Your task to perform on an android device: turn off priority inbox in the gmail app Image 0: 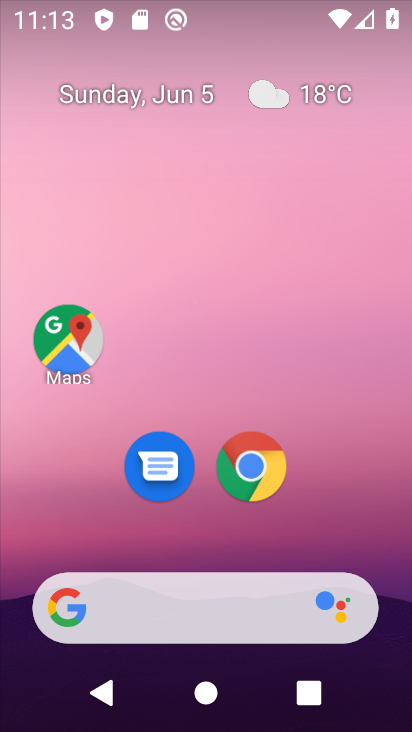
Step 0: drag from (378, 565) to (377, 201)
Your task to perform on an android device: turn off priority inbox in the gmail app Image 1: 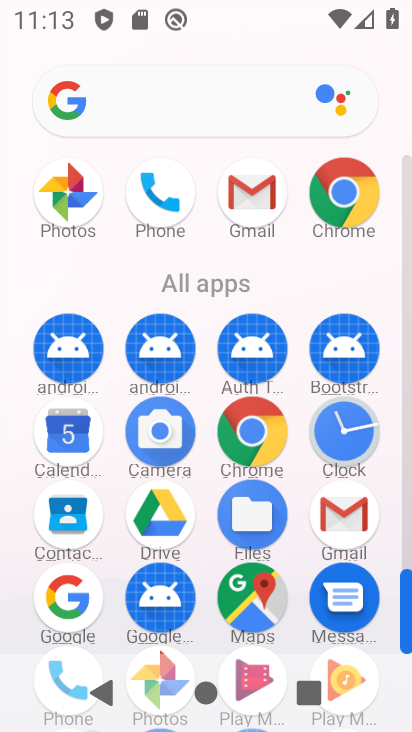
Step 1: click (349, 516)
Your task to perform on an android device: turn off priority inbox in the gmail app Image 2: 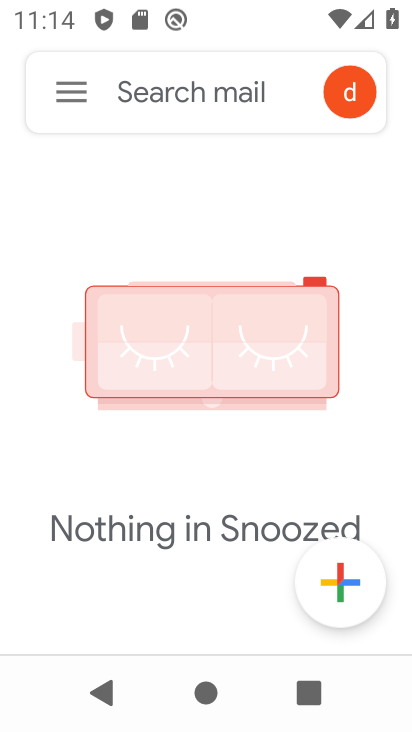
Step 2: click (61, 93)
Your task to perform on an android device: turn off priority inbox in the gmail app Image 3: 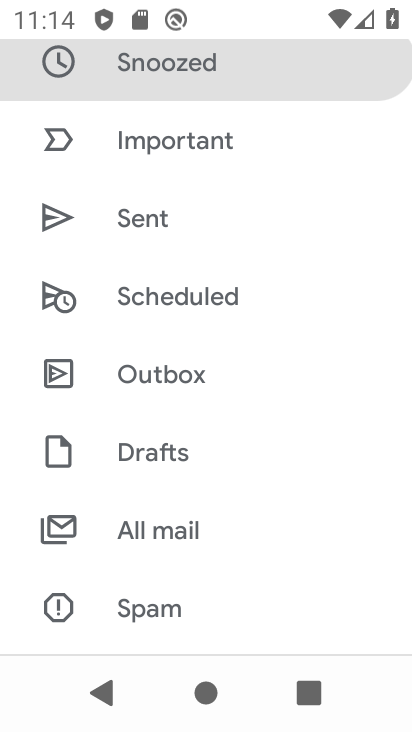
Step 3: drag from (197, 640) to (278, 299)
Your task to perform on an android device: turn off priority inbox in the gmail app Image 4: 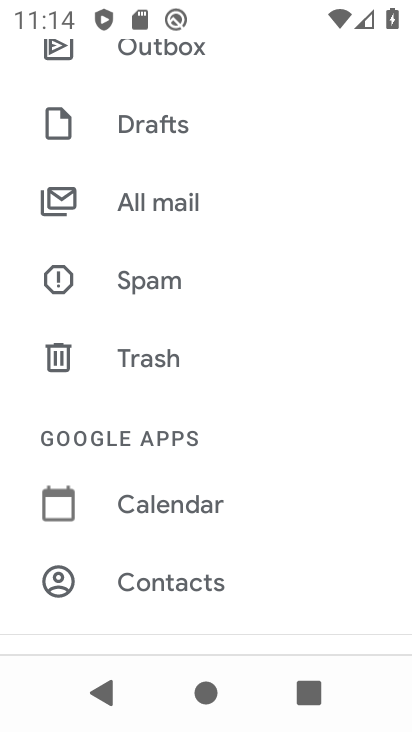
Step 4: drag from (157, 602) to (267, 261)
Your task to perform on an android device: turn off priority inbox in the gmail app Image 5: 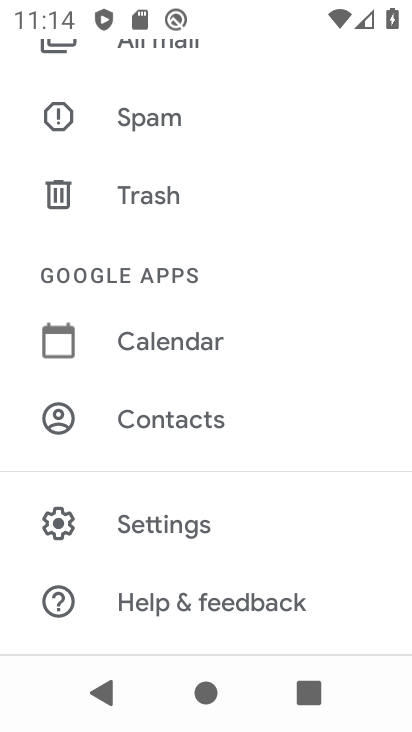
Step 5: click (176, 511)
Your task to perform on an android device: turn off priority inbox in the gmail app Image 6: 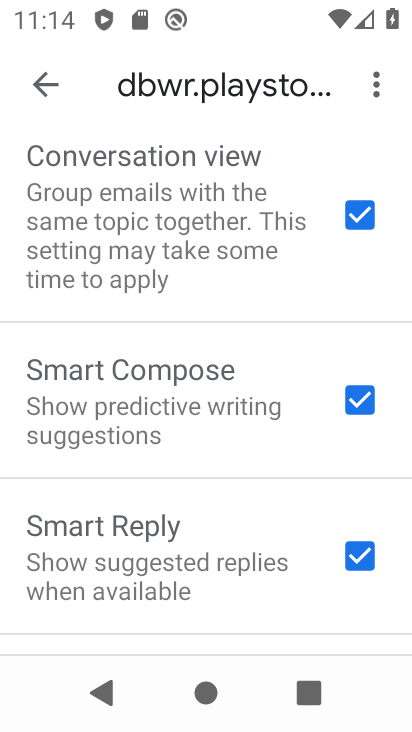
Step 6: click (61, 92)
Your task to perform on an android device: turn off priority inbox in the gmail app Image 7: 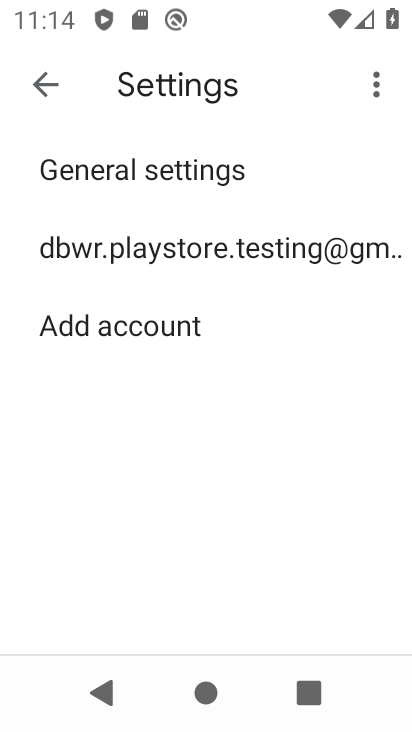
Step 7: click (125, 245)
Your task to perform on an android device: turn off priority inbox in the gmail app Image 8: 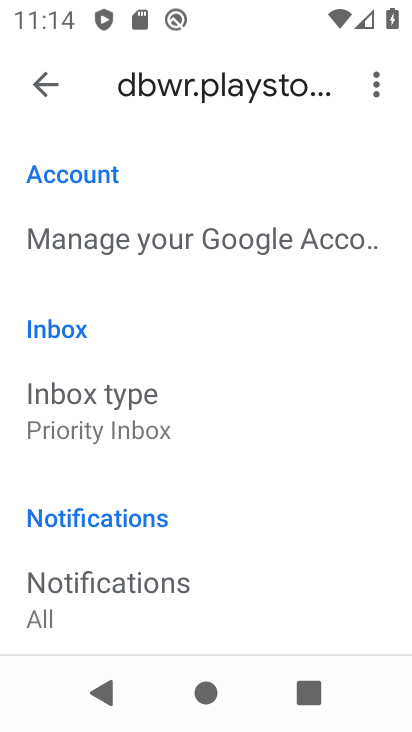
Step 8: click (147, 428)
Your task to perform on an android device: turn off priority inbox in the gmail app Image 9: 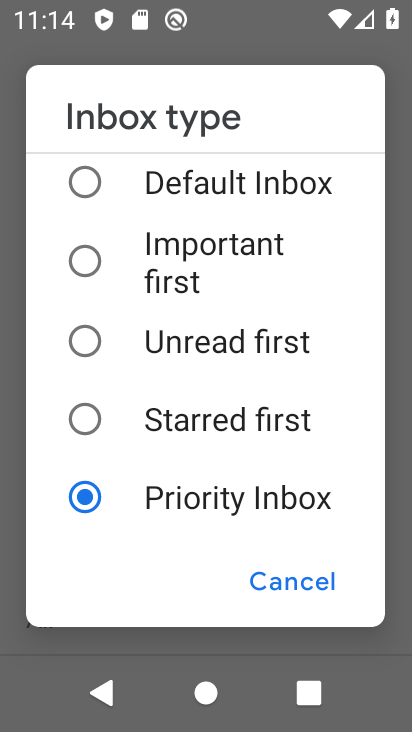
Step 9: click (89, 191)
Your task to perform on an android device: turn off priority inbox in the gmail app Image 10: 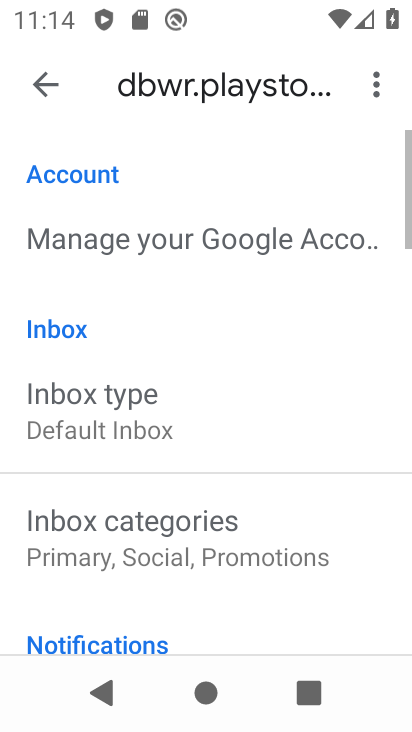
Step 10: task complete